Your task to perform on an android device: open app "Life360: Find Family & Friends" Image 0: 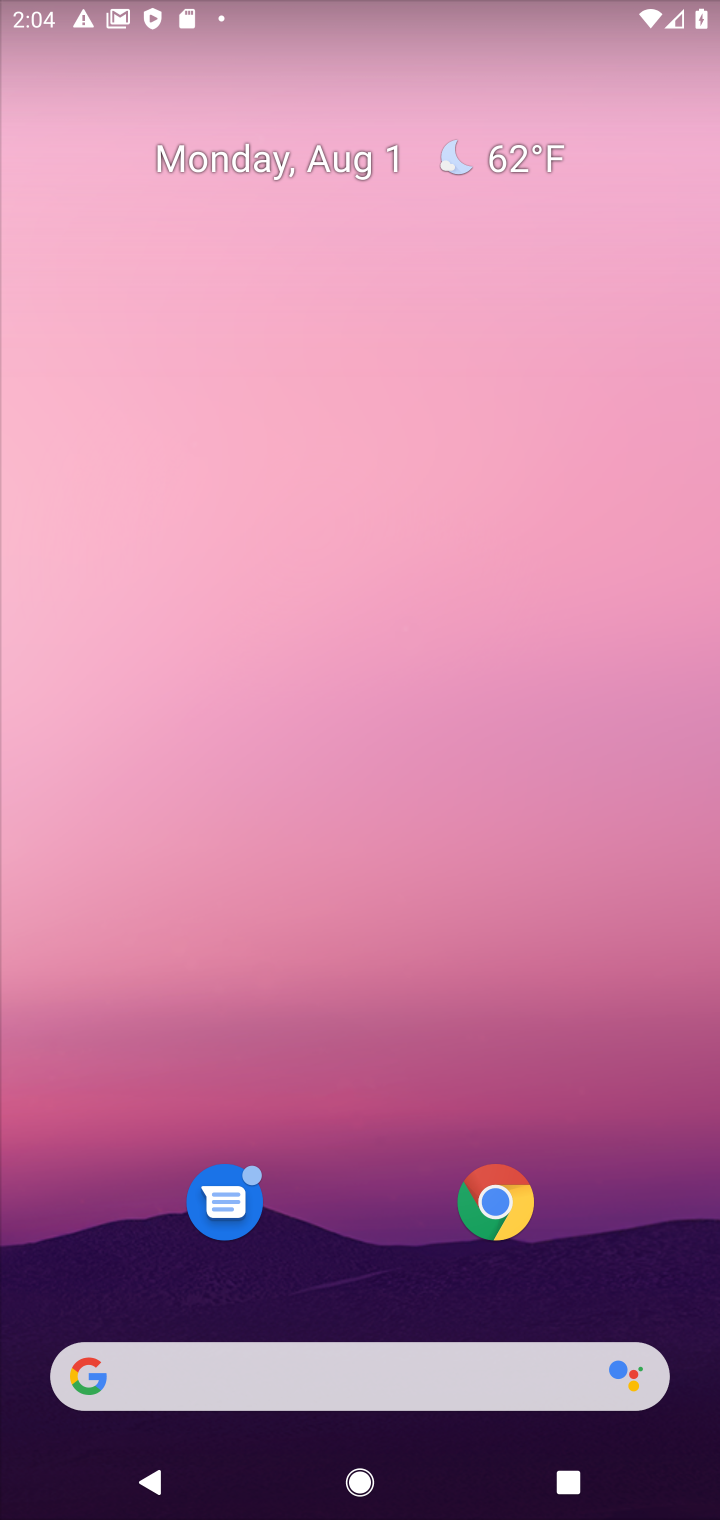
Step 0: drag from (404, 1191) to (555, 26)
Your task to perform on an android device: open app "Life360: Find Family & Friends" Image 1: 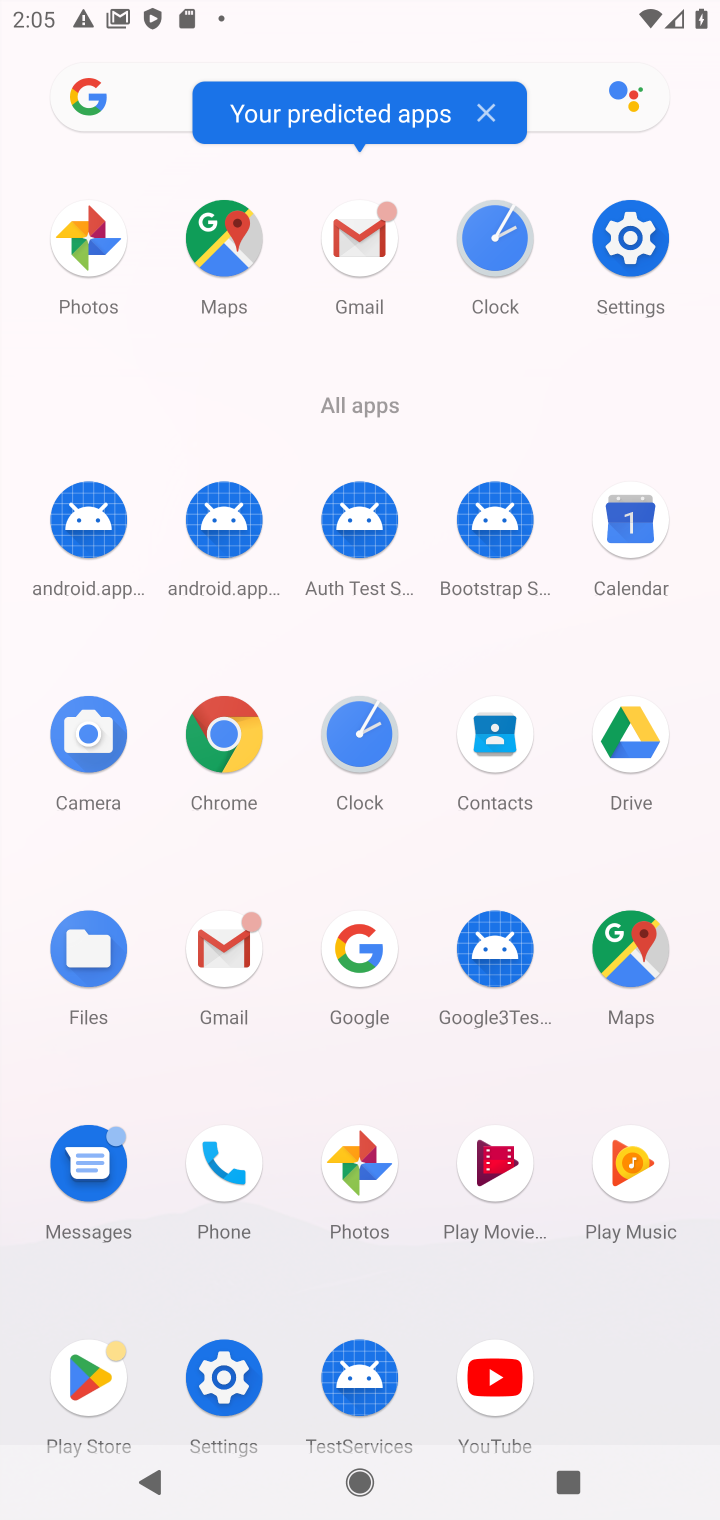
Step 1: click (80, 1384)
Your task to perform on an android device: open app "Life360: Find Family & Friends" Image 2: 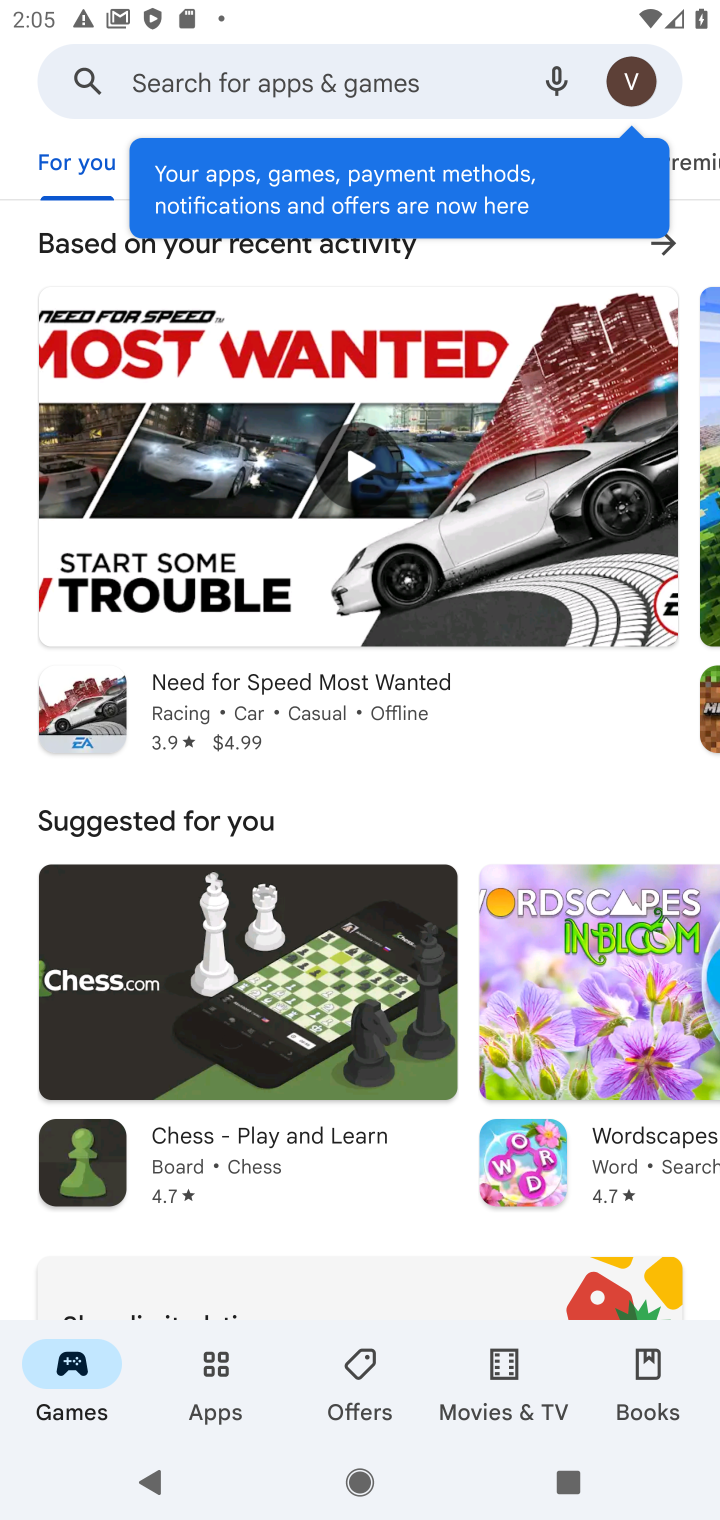
Step 2: click (348, 76)
Your task to perform on an android device: open app "Life360: Find Family & Friends" Image 3: 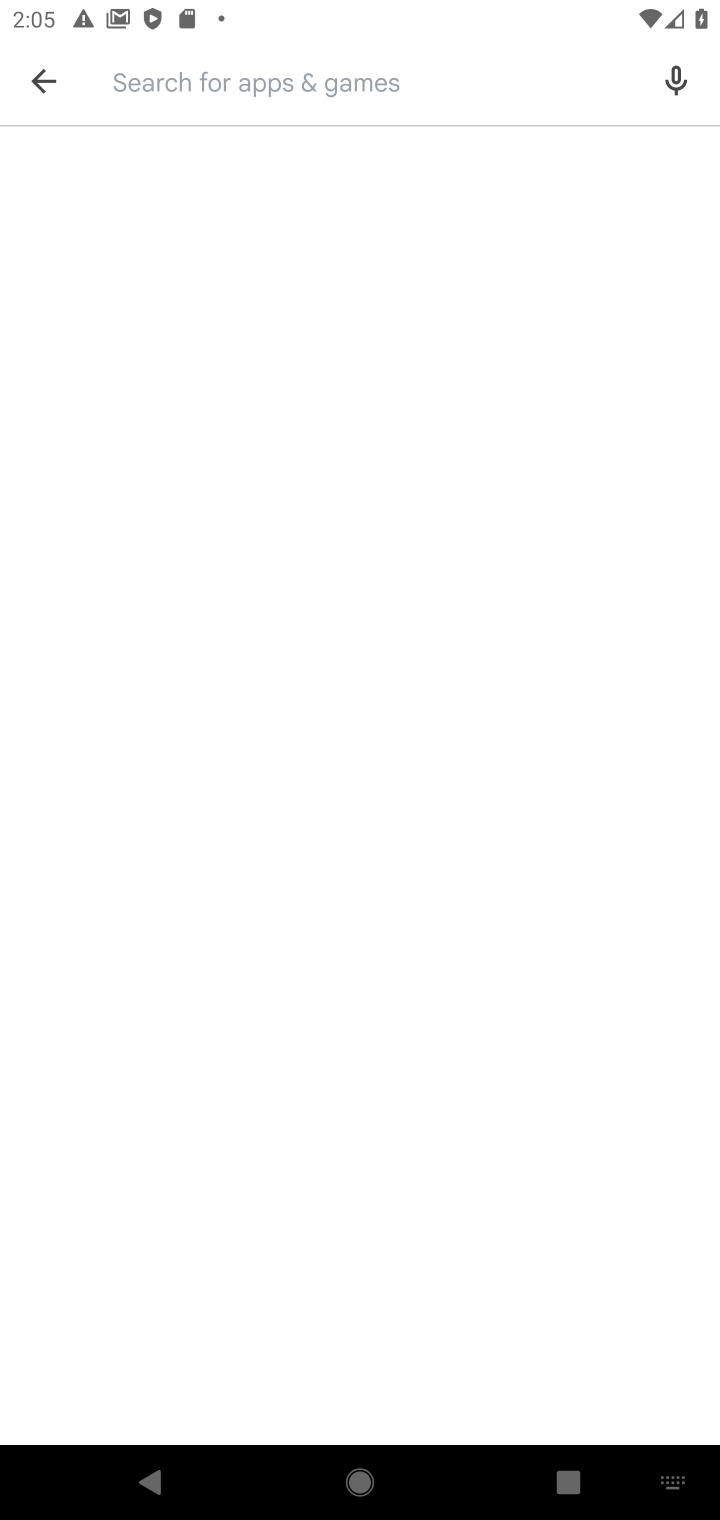
Step 3: type "life360: find family & friends"
Your task to perform on an android device: open app "Life360: Find Family & Friends" Image 4: 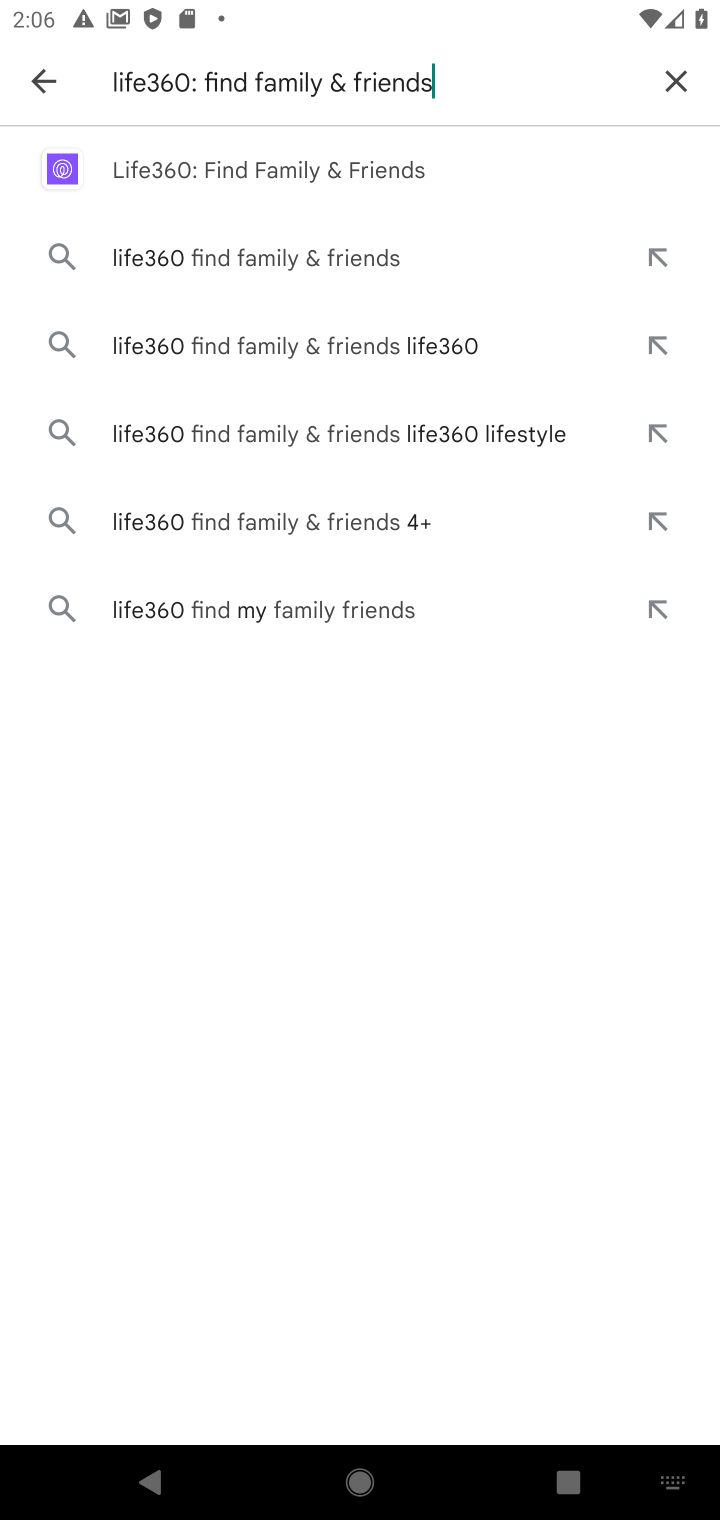
Step 4: click (356, 161)
Your task to perform on an android device: open app "Life360: Find Family & Friends" Image 5: 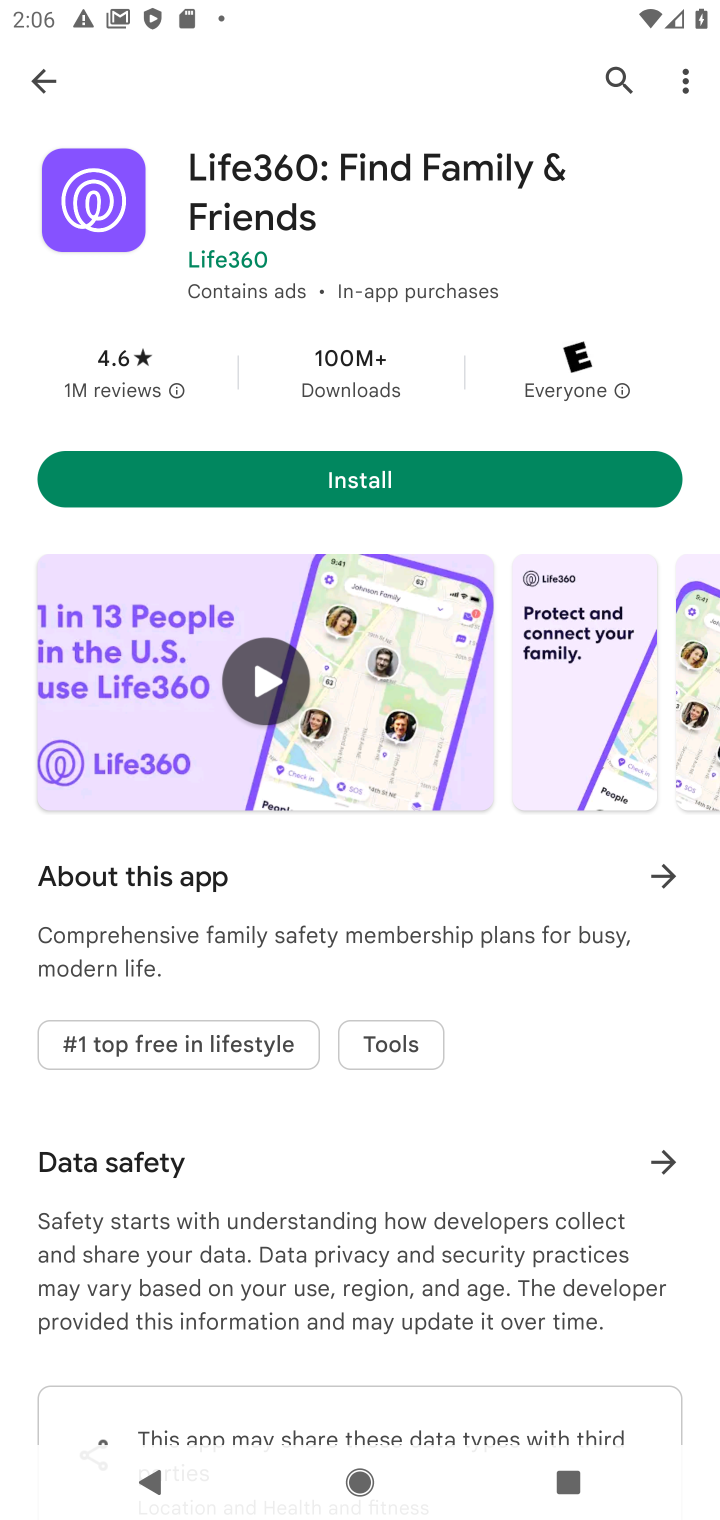
Step 5: task complete